Your task to perform on an android device: change timer sound Image 0: 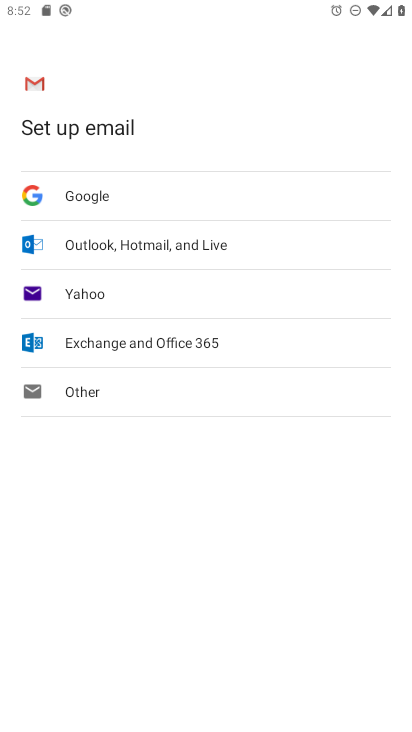
Step 0: press home button
Your task to perform on an android device: change timer sound Image 1: 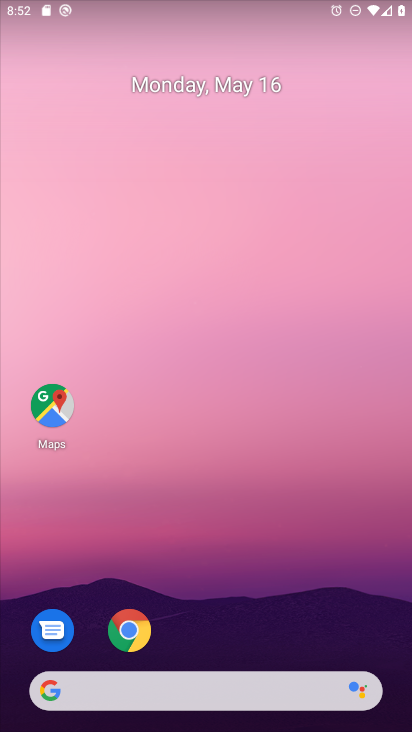
Step 1: drag from (218, 635) to (303, 130)
Your task to perform on an android device: change timer sound Image 2: 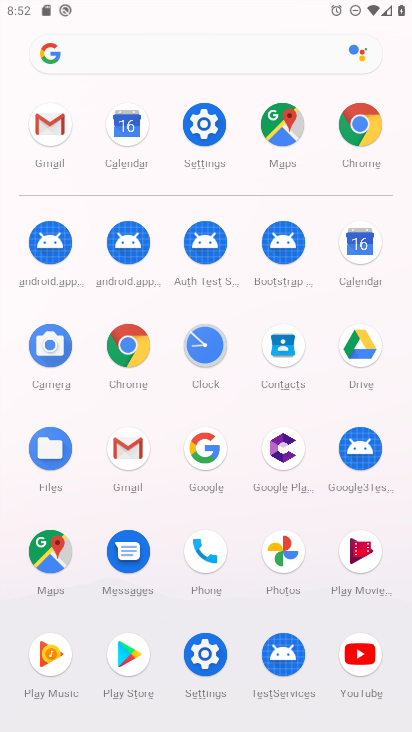
Step 2: click (200, 352)
Your task to perform on an android device: change timer sound Image 3: 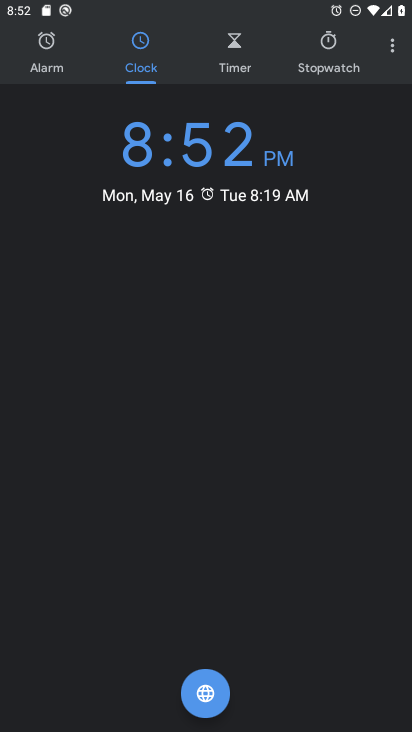
Step 3: click (233, 55)
Your task to perform on an android device: change timer sound Image 4: 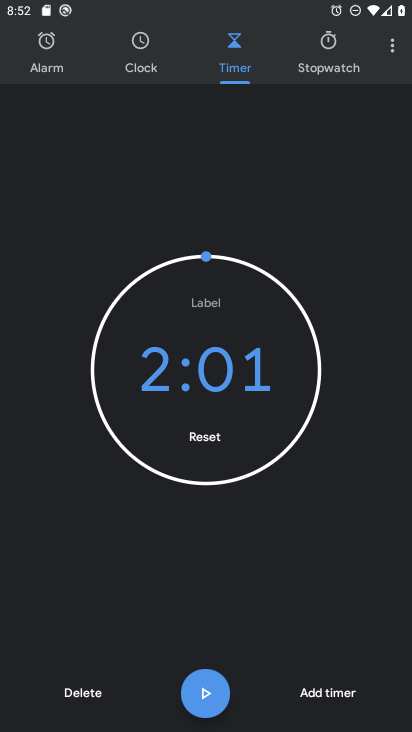
Step 4: click (396, 48)
Your task to perform on an android device: change timer sound Image 5: 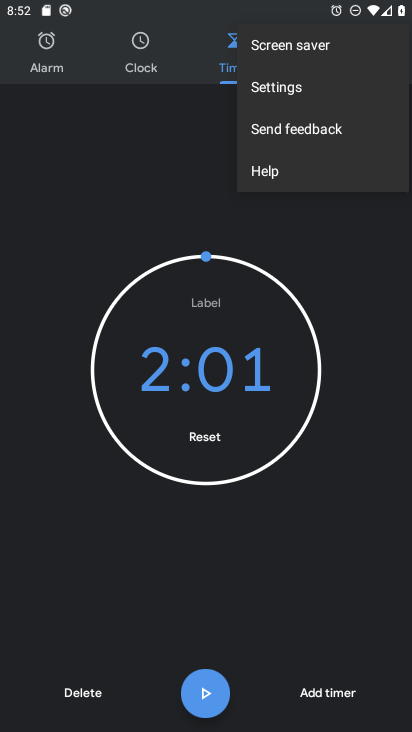
Step 5: click (278, 89)
Your task to perform on an android device: change timer sound Image 6: 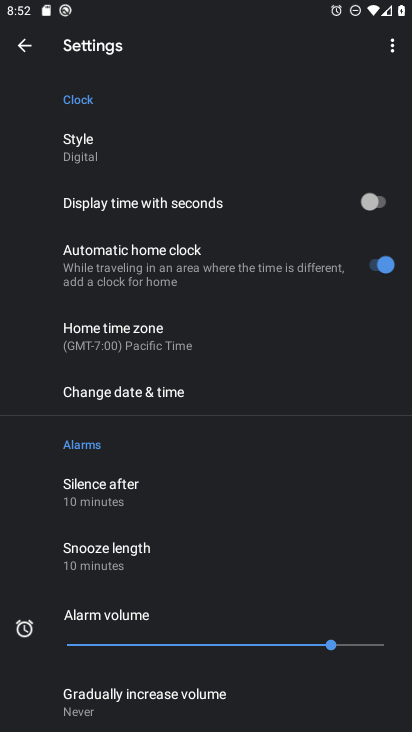
Step 6: drag from (232, 551) to (211, 63)
Your task to perform on an android device: change timer sound Image 7: 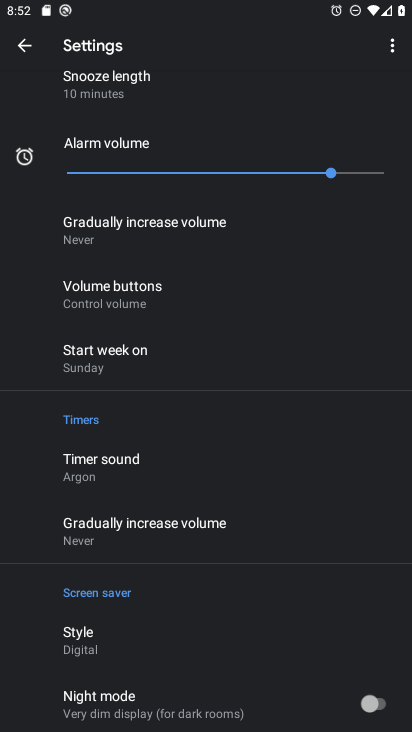
Step 7: drag from (153, 552) to (156, 424)
Your task to perform on an android device: change timer sound Image 8: 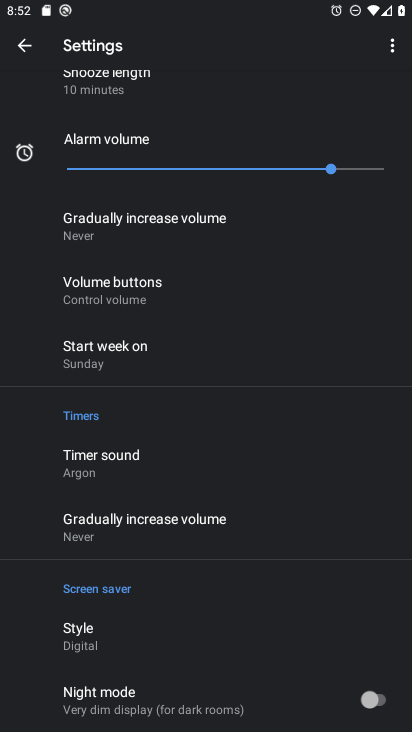
Step 8: click (122, 450)
Your task to perform on an android device: change timer sound Image 9: 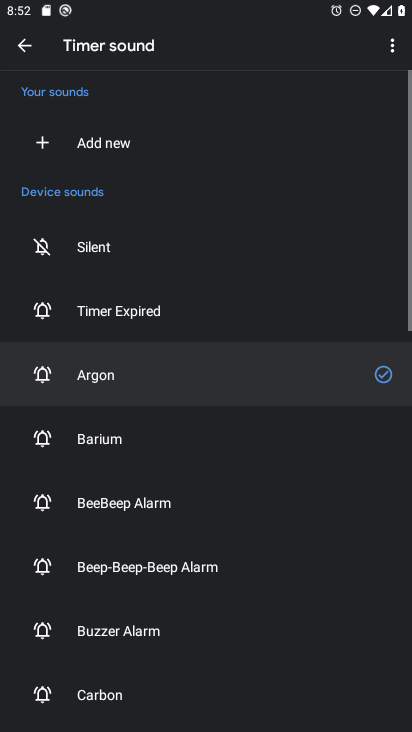
Step 9: click (114, 434)
Your task to perform on an android device: change timer sound Image 10: 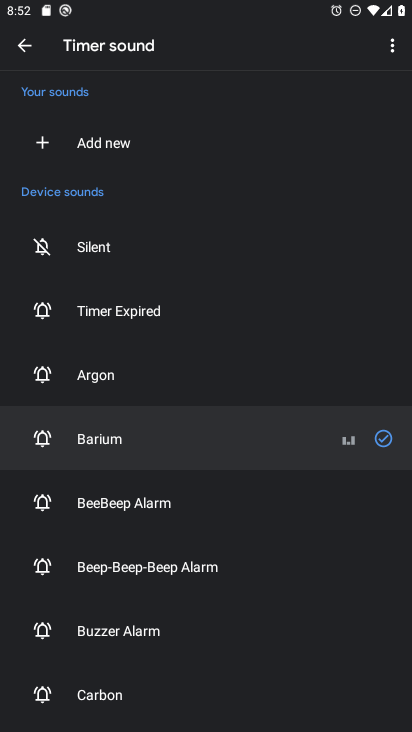
Step 10: task complete